Your task to perform on an android device: Open the map Image 0: 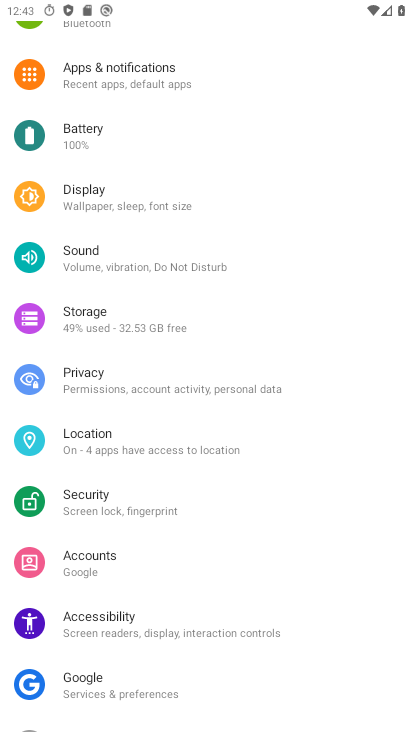
Step 0: press back button
Your task to perform on an android device: Open the map Image 1: 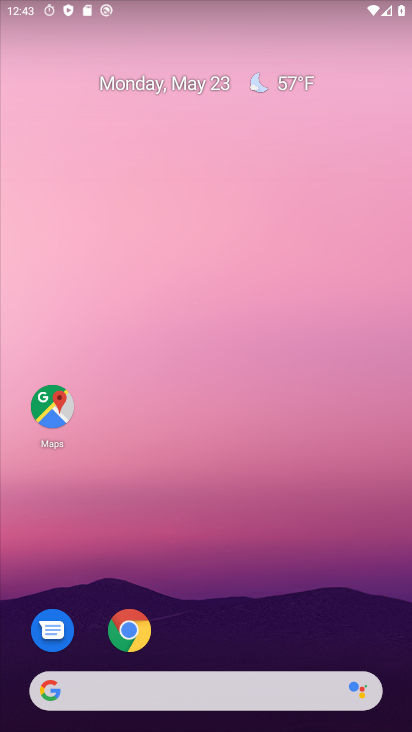
Step 1: drag from (351, 591) to (324, 38)
Your task to perform on an android device: Open the map Image 2: 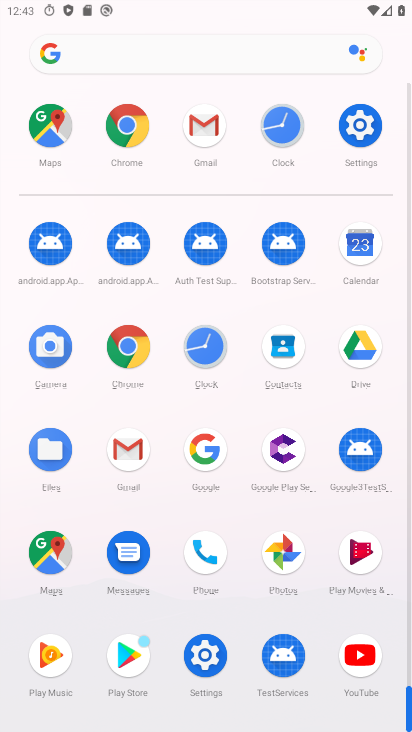
Step 2: drag from (18, 569) to (17, 256)
Your task to perform on an android device: Open the map Image 3: 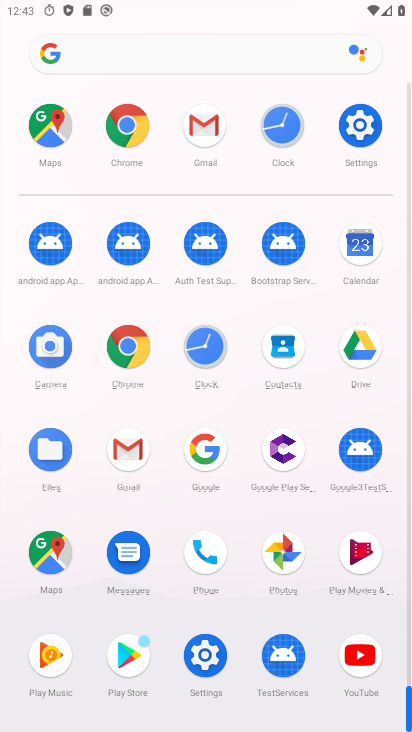
Step 3: click (45, 551)
Your task to perform on an android device: Open the map Image 4: 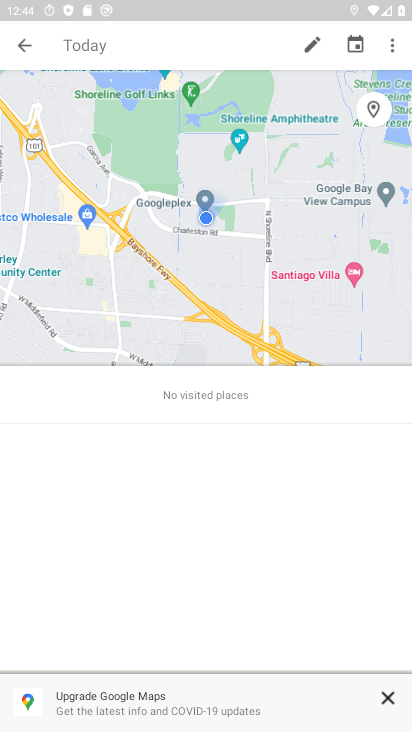
Step 4: click (16, 42)
Your task to perform on an android device: Open the map Image 5: 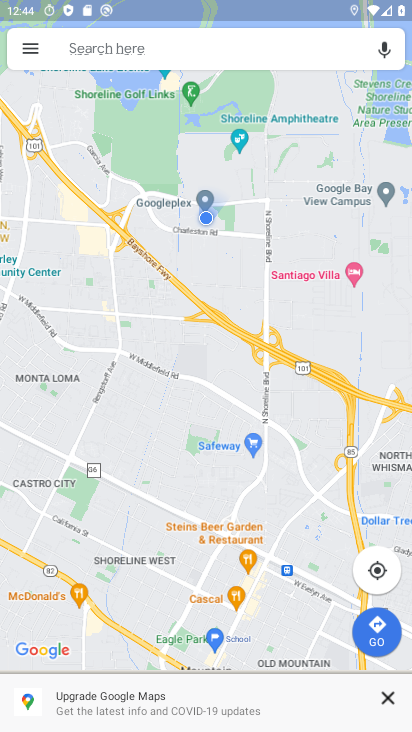
Step 5: task complete